Your task to perform on an android device: add a label to a message in the gmail app Image 0: 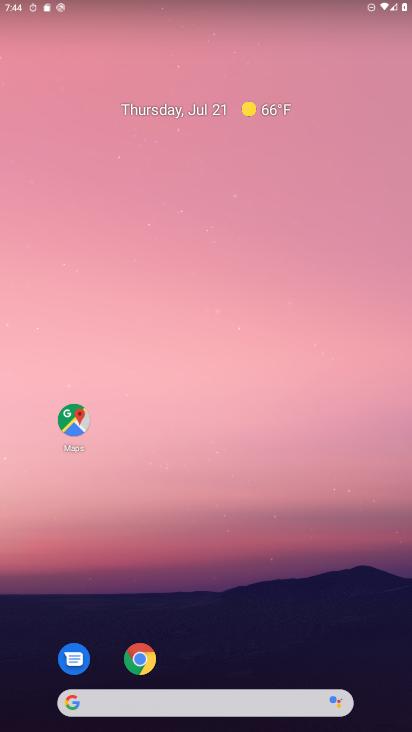
Step 0: drag from (193, 667) to (177, 4)
Your task to perform on an android device: add a label to a message in the gmail app Image 1: 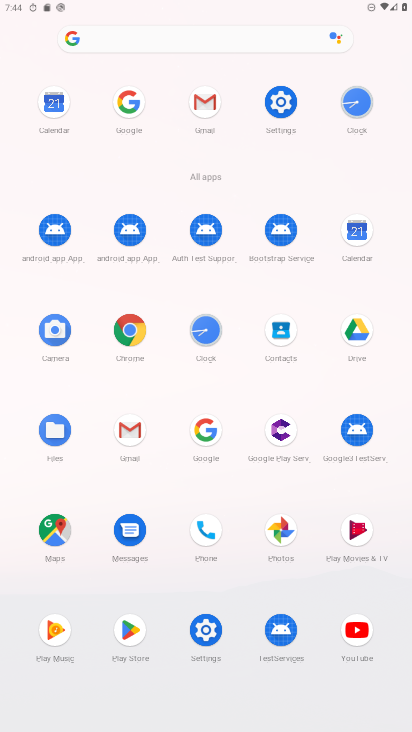
Step 1: click (134, 419)
Your task to perform on an android device: add a label to a message in the gmail app Image 2: 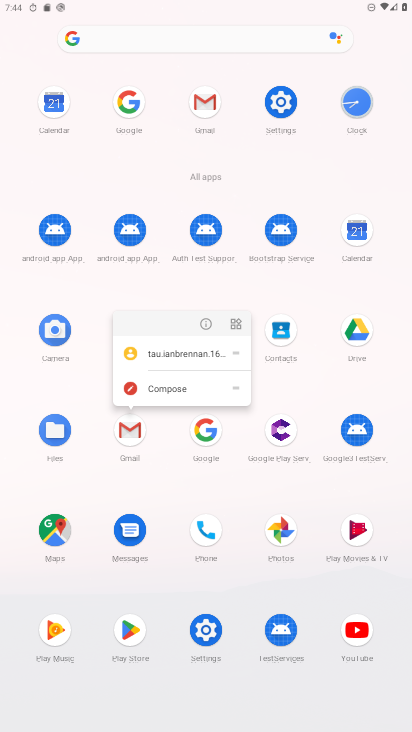
Step 2: click (208, 329)
Your task to perform on an android device: add a label to a message in the gmail app Image 3: 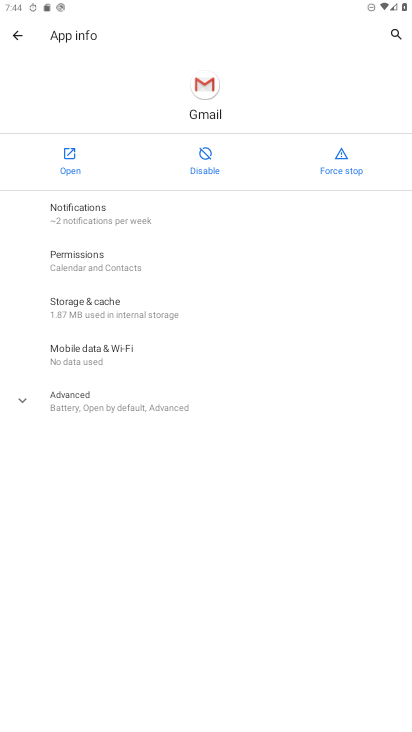
Step 3: click (71, 161)
Your task to perform on an android device: add a label to a message in the gmail app Image 4: 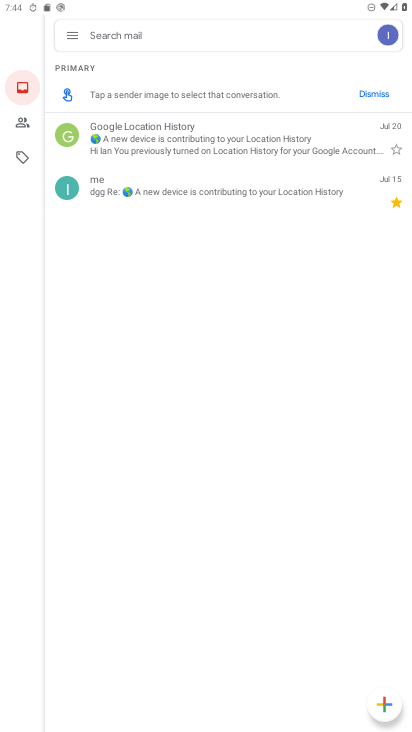
Step 4: drag from (192, 515) to (212, 143)
Your task to perform on an android device: add a label to a message in the gmail app Image 5: 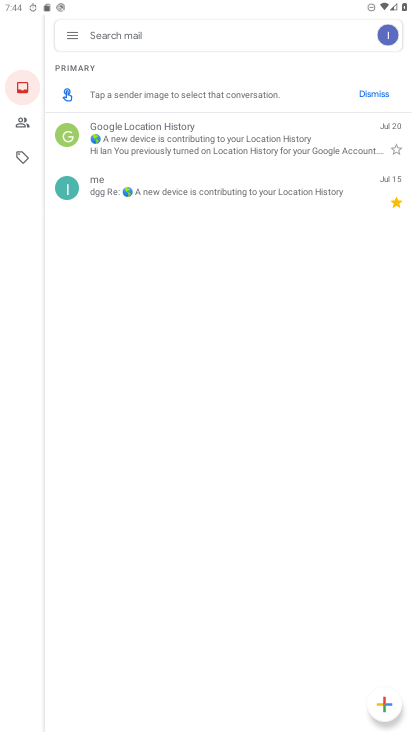
Step 5: click (350, 588)
Your task to perform on an android device: add a label to a message in the gmail app Image 6: 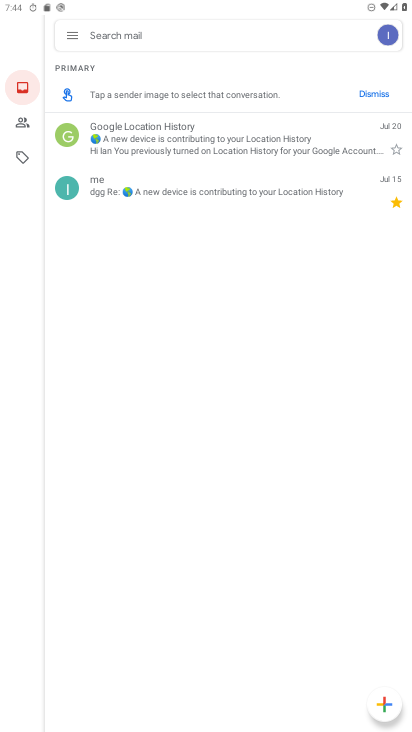
Step 6: click (178, 130)
Your task to perform on an android device: add a label to a message in the gmail app Image 7: 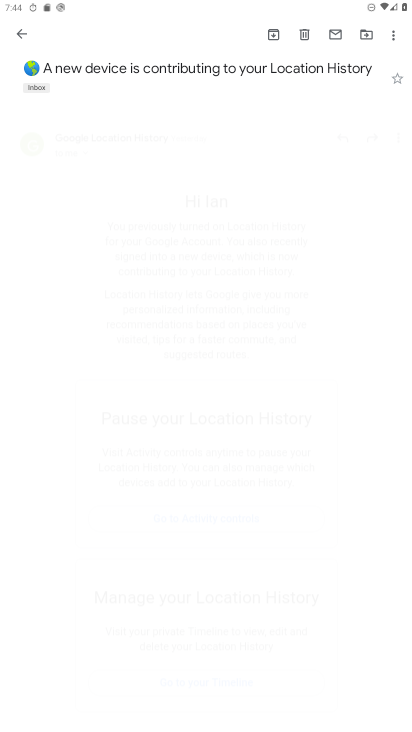
Step 7: click (401, 78)
Your task to perform on an android device: add a label to a message in the gmail app Image 8: 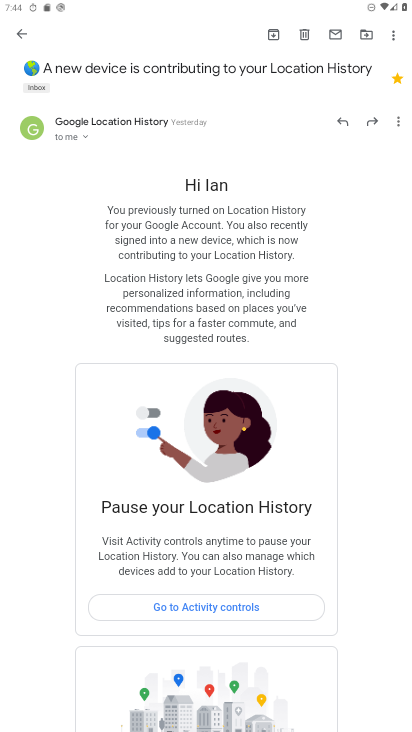
Step 8: task complete